Your task to perform on an android device: Search for "usb-c to usb-a" on target, select the first entry, add it to the cart, then select checkout. Image 0: 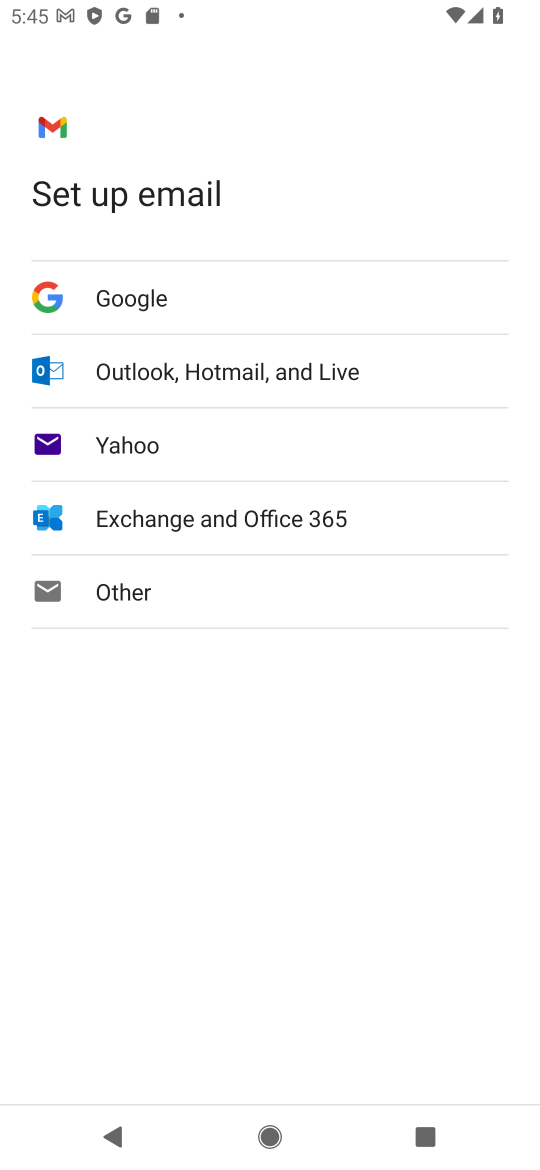
Step 0: press home button
Your task to perform on an android device: Search for "usb-c to usb-a" on target, select the first entry, add it to the cart, then select checkout. Image 1: 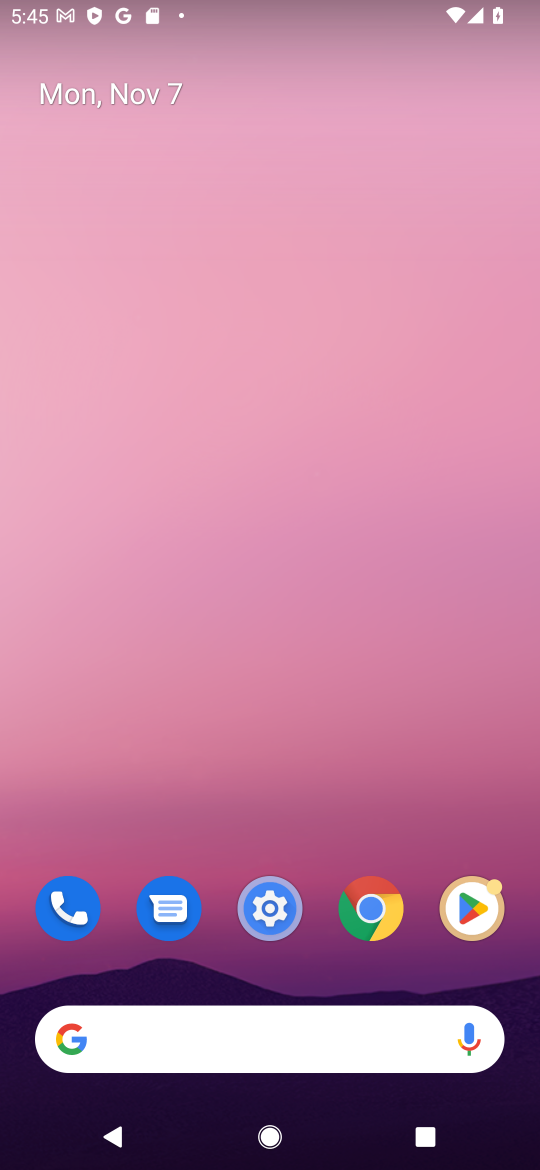
Step 1: click (274, 1036)
Your task to perform on an android device: Search for "usb-c to usb-a" on target, select the first entry, add it to the cart, then select checkout. Image 2: 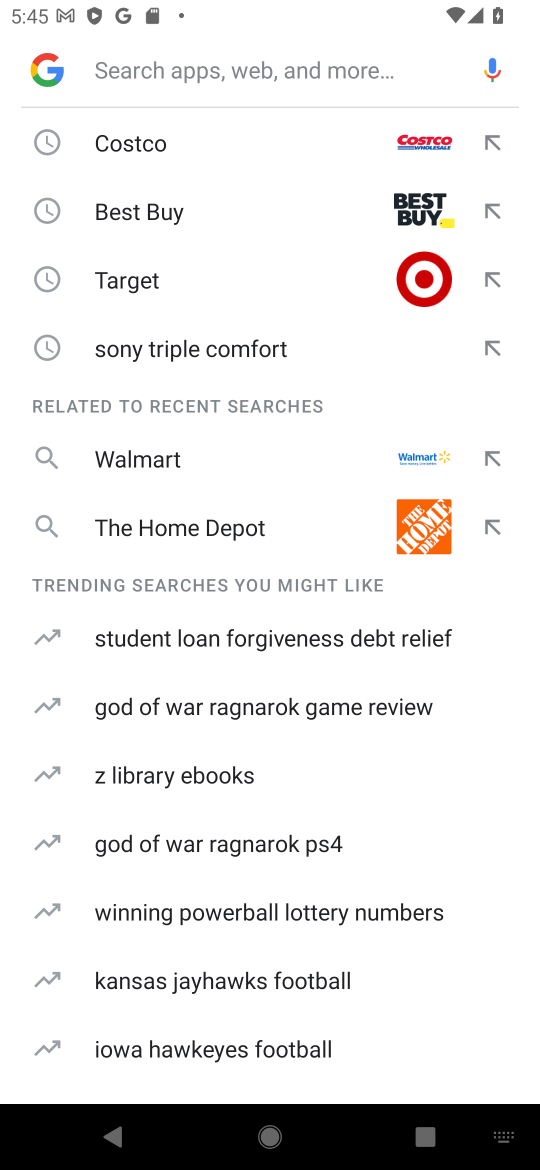
Step 2: click (198, 267)
Your task to perform on an android device: Search for "usb-c to usb-a" on target, select the first entry, add it to the cart, then select checkout. Image 3: 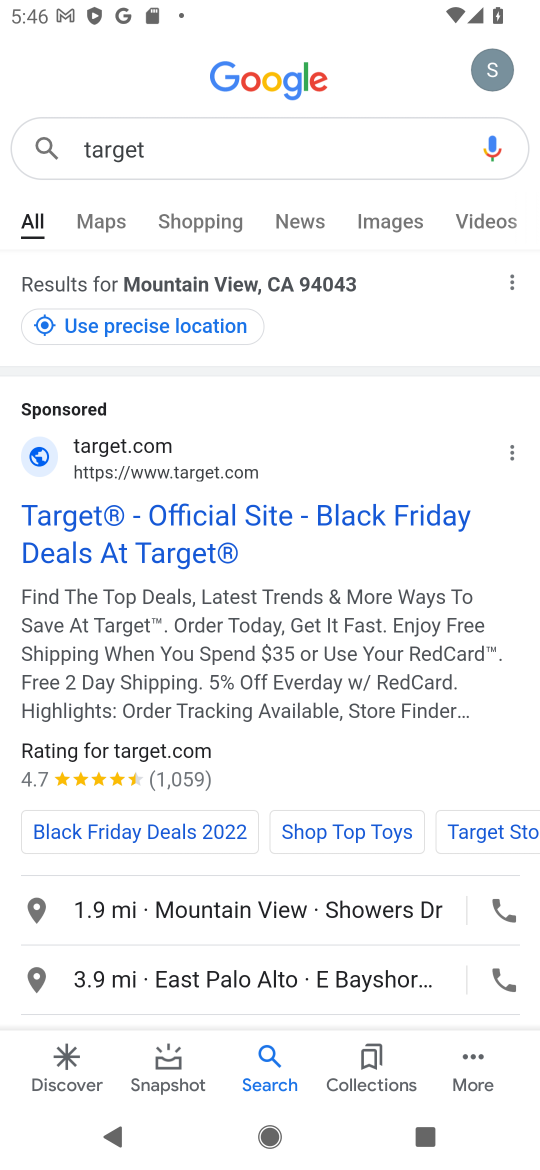
Step 3: click (148, 512)
Your task to perform on an android device: Search for "usb-c to usb-a" on target, select the first entry, add it to the cart, then select checkout. Image 4: 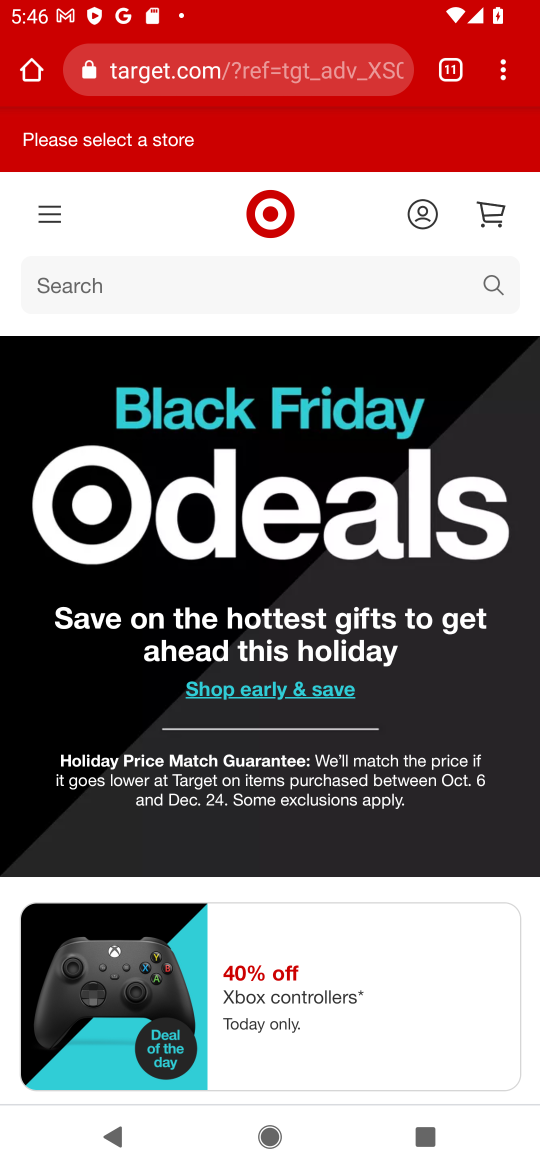
Step 4: click (155, 272)
Your task to perform on an android device: Search for "usb-c to usb-a" on target, select the first entry, add it to the cart, then select checkout. Image 5: 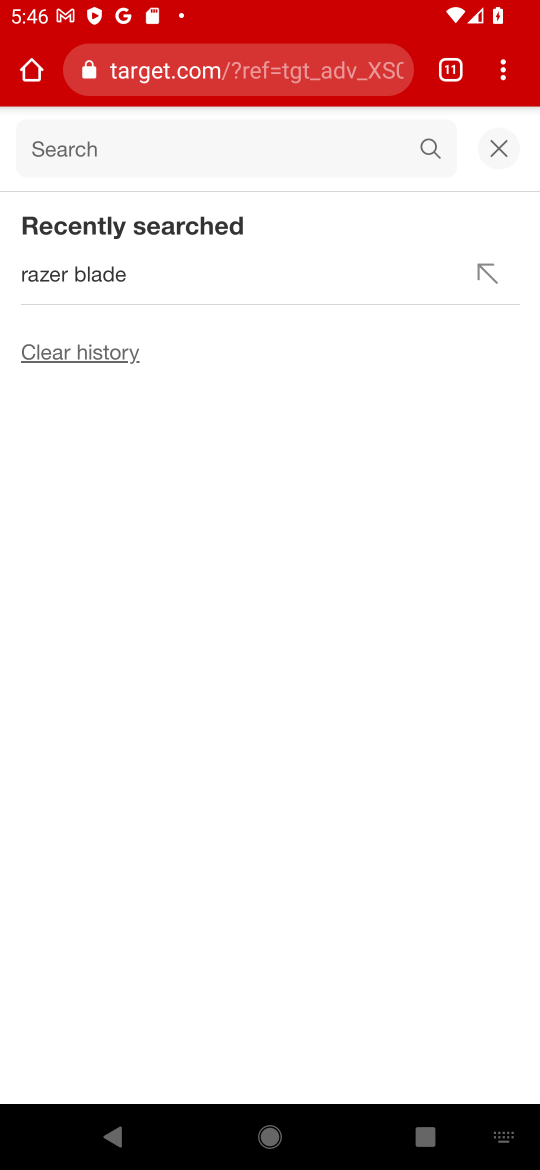
Step 5: task complete